Your task to perform on an android device: turn off location Image 0: 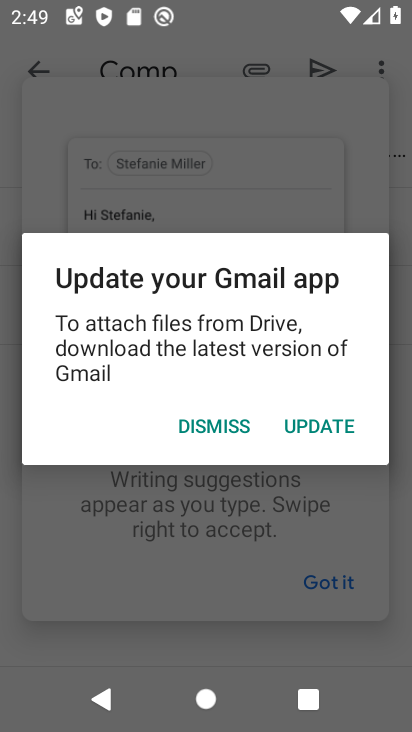
Step 0: press back button
Your task to perform on an android device: turn off location Image 1: 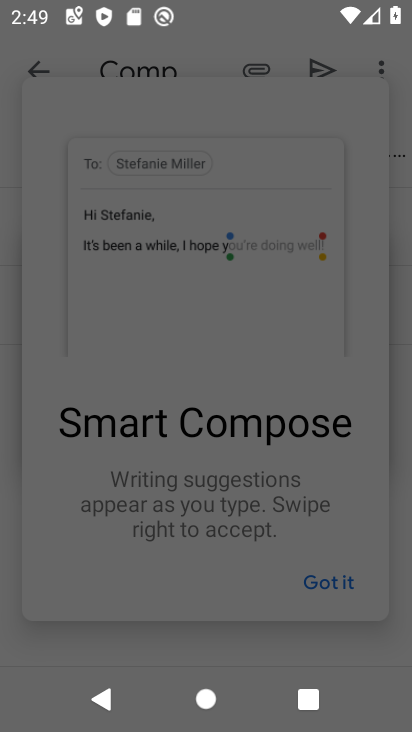
Step 1: press back button
Your task to perform on an android device: turn off location Image 2: 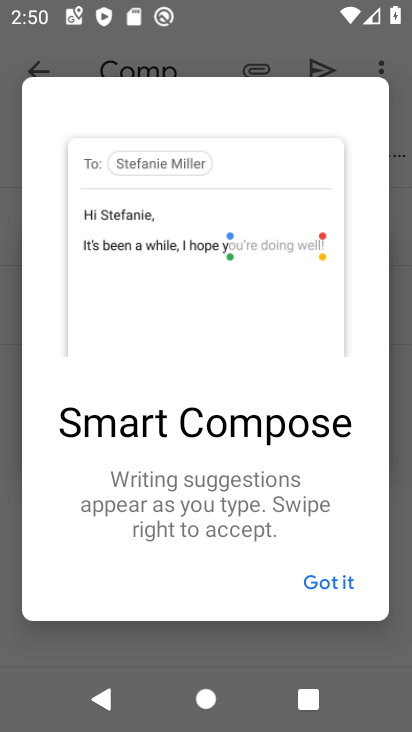
Step 2: press home button
Your task to perform on an android device: turn off location Image 3: 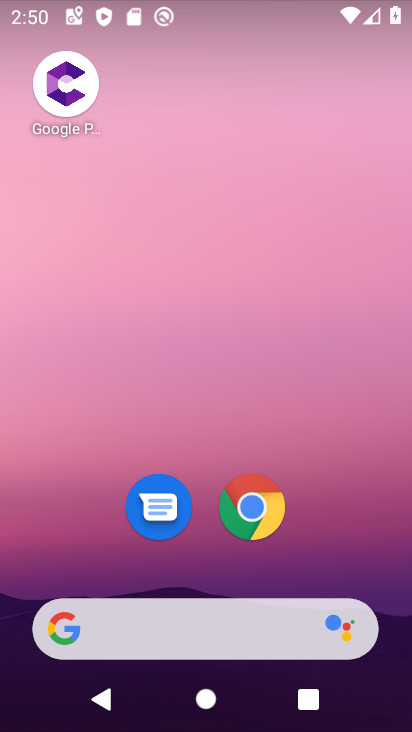
Step 3: drag from (167, 545) to (246, 194)
Your task to perform on an android device: turn off location Image 4: 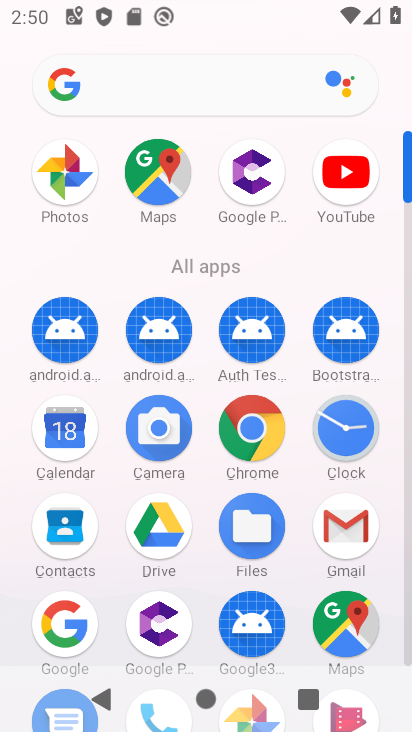
Step 4: drag from (199, 565) to (285, 153)
Your task to perform on an android device: turn off location Image 5: 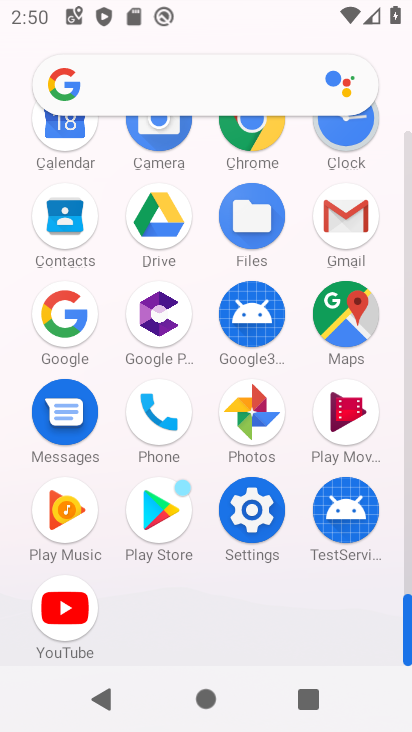
Step 5: click (269, 511)
Your task to perform on an android device: turn off location Image 6: 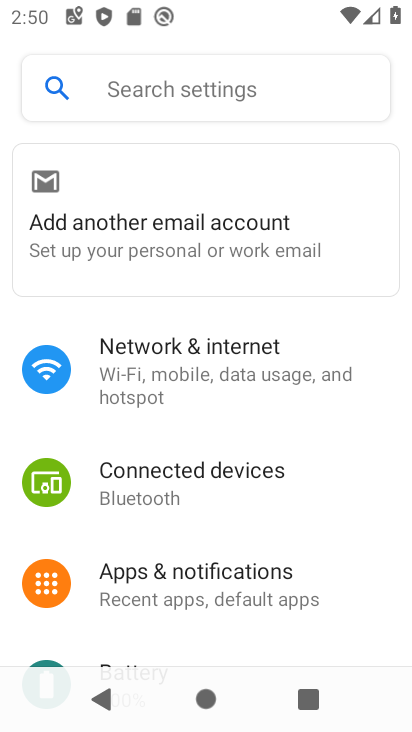
Step 6: drag from (188, 585) to (240, 89)
Your task to perform on an android device: turn off location Image 7: 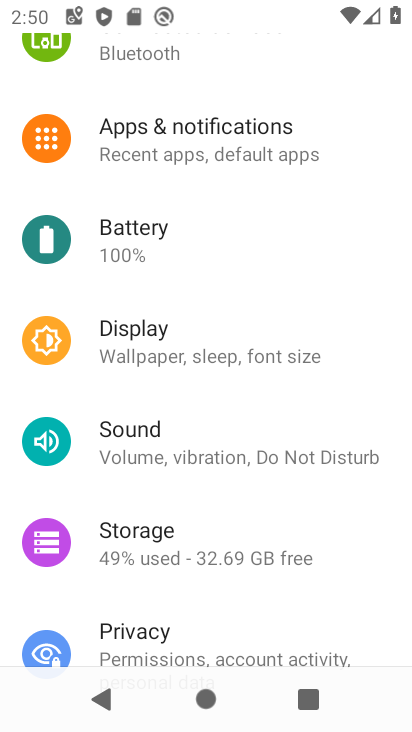
Step 7: drag from (166, 644) to (255, 149)
Your task to perform on an android device: turn off location Image 8: 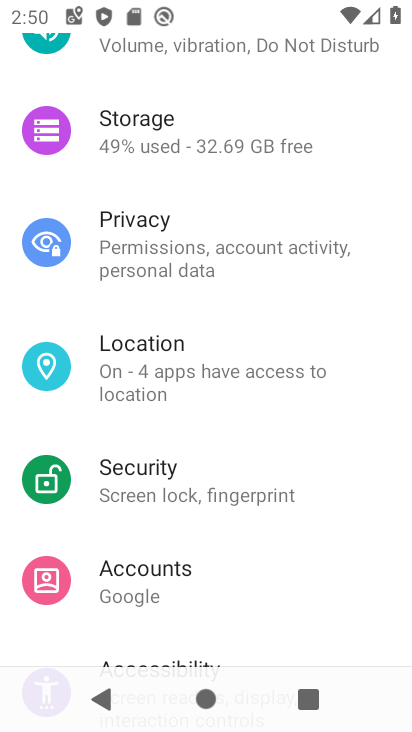
Step 8: click (158, 363)
Your task to perform on an android device: turn off location Image 9: 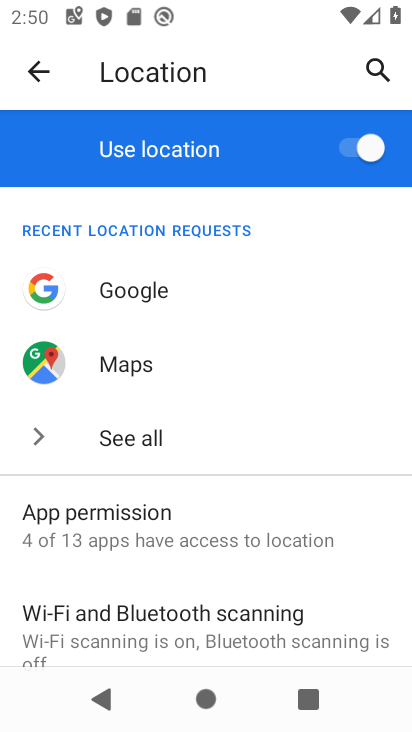
Step 9: click (369, 137)
Your task to perform on an android device: turn off location Image 10: 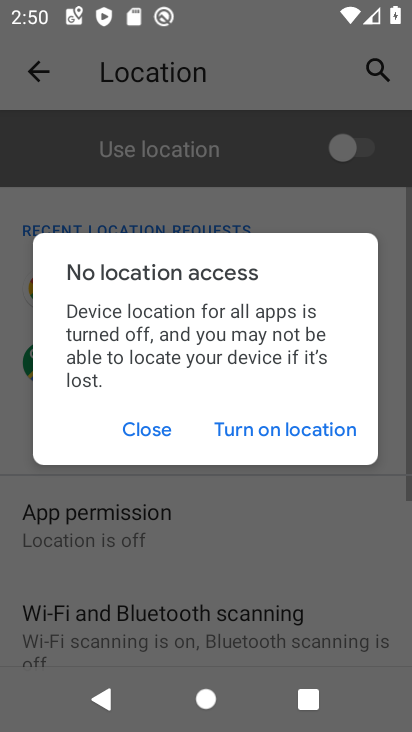
Step 10: task complete